Your task to perform on an android device: open a bookmark in the chrome app Image 0: 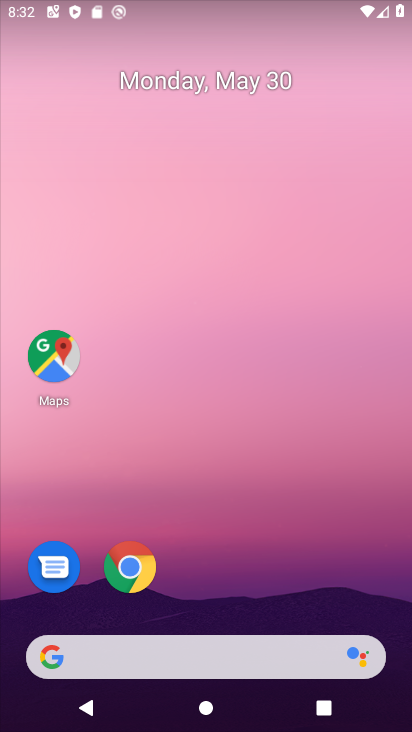
Step 0: drag from (179, 11) to (165, 531)
Your task to perform on an android device: open a bookmark in the chrome app Image 1: 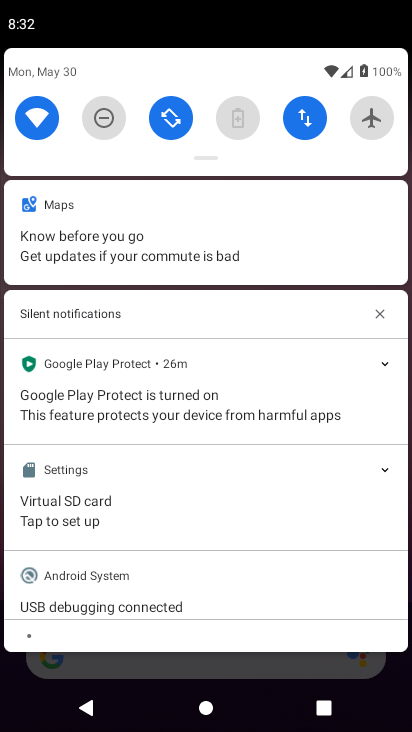
Step 1: click (37, 97)
Your task to perform on an android device: open a bookmark in the chrome app Image 2: 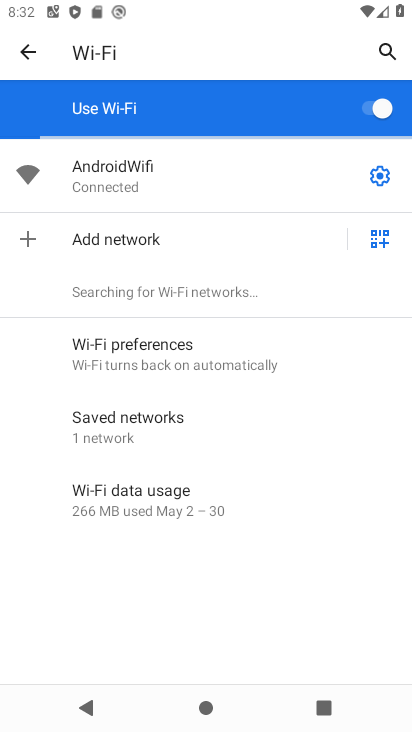
Step 2: task complete